Your task to perform on an android device: clear all cookies in the chrome app Image 0: 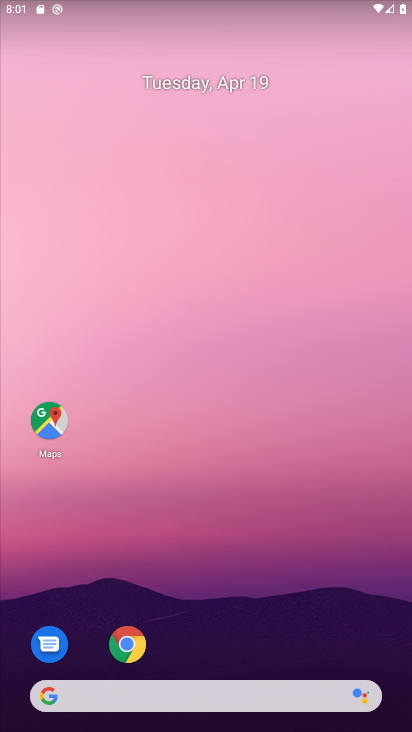
Step 0: drag from (201, 554) to (202, 74)
Your task to perform on an android device: clear all cookies in the chrome app Image 1: 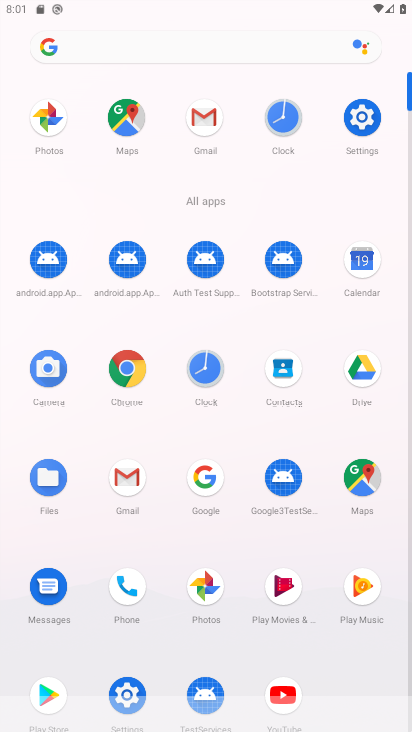
Step 1: drag from (142, 670) to (149, 277)
Your task to perform on an android device: clear all cookies in the chrome app Image 2: 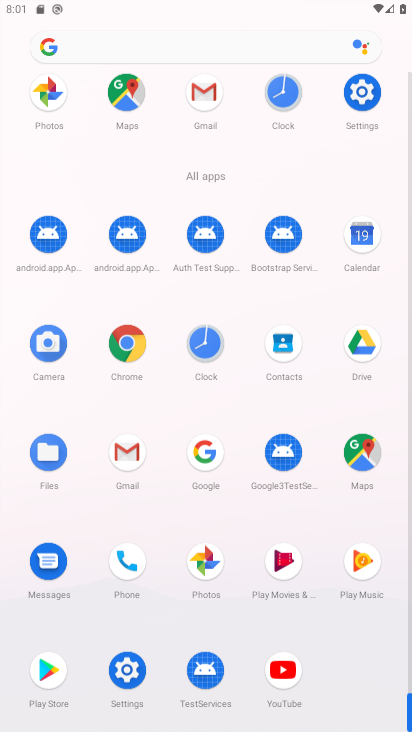
Step 2: click (122, 318)
Your task to perform on an android device: clear all cookies in the chrome app Image 3: 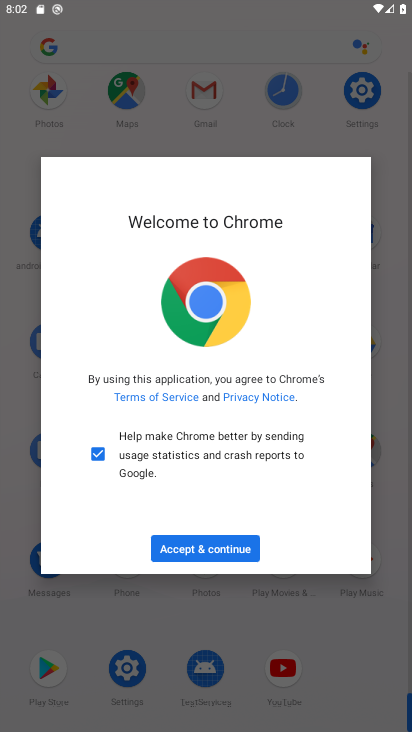
Step 3: click (220, 552)
Your task to perform on an android device: clear all cookies in the chrome app Image 4: 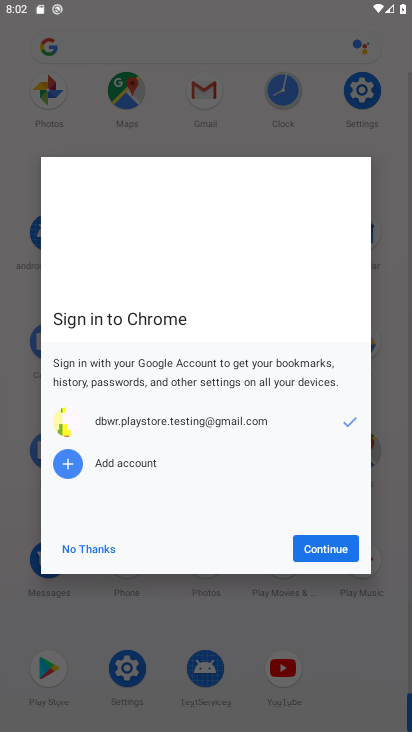
Step 4: click (336, 548)
Your task to perform on an android device: clear all cookies in the chrome app Image 5: 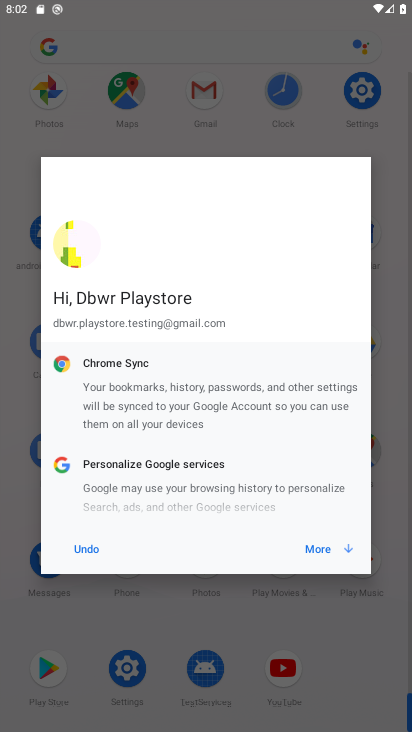
Step 5: click (316, 547)
Your task to perform on an android device: clear all cookies in the chrome app Image 6: 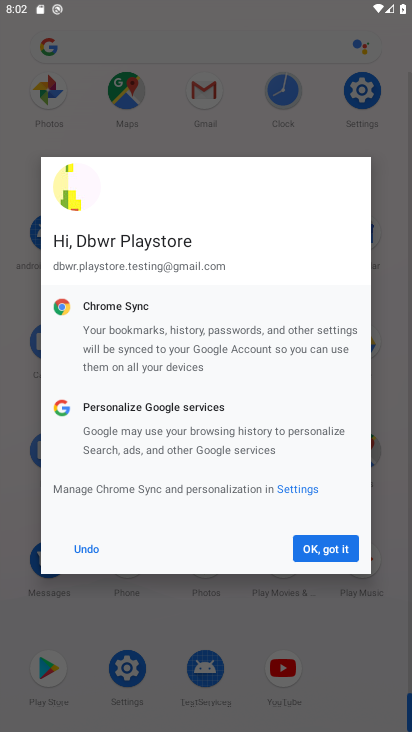
Step 6: click (316, 546)
Your task to perform on an android device: clear all cookies in the chrome app Image 7: 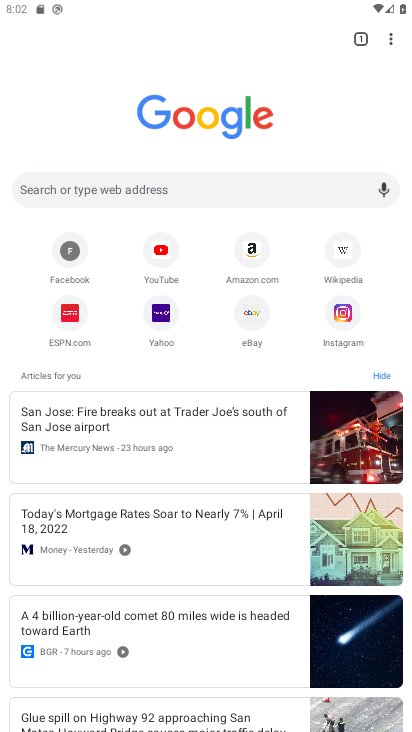
Step 7: click (389, 38)
Your task to perform on an android device: clear all cookies in the chrome app Image 8: 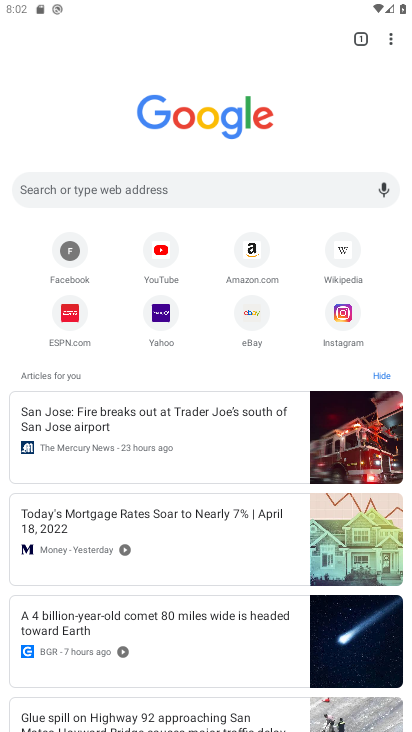
Step 8: click (389, 38)
Your task to perform on an android device: clear all cookies in the chrome app Image 9: 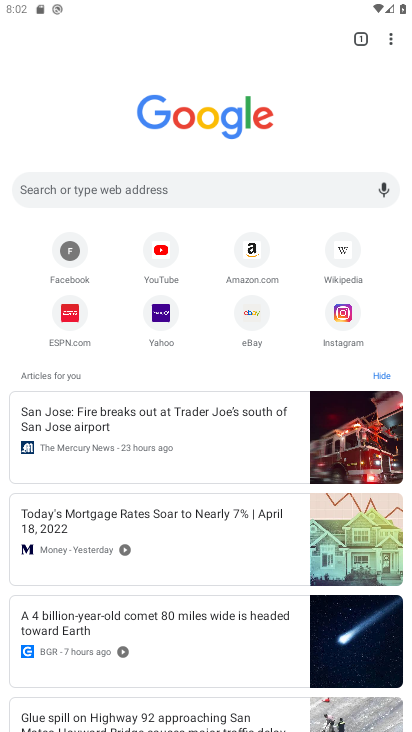
Step 9: click (390, 40)
Your task to perform on an android device: clear all cookies in the chrome app Image 10: 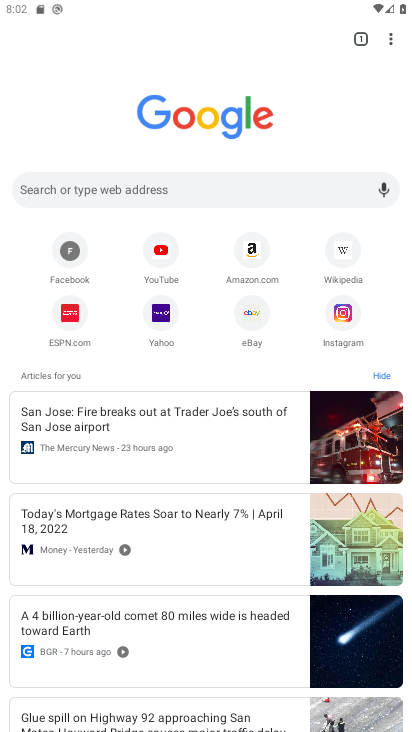
Step 10: click (390, 43)
Your task to perform on an android device: clear all cookies in the chrome app Image 11: 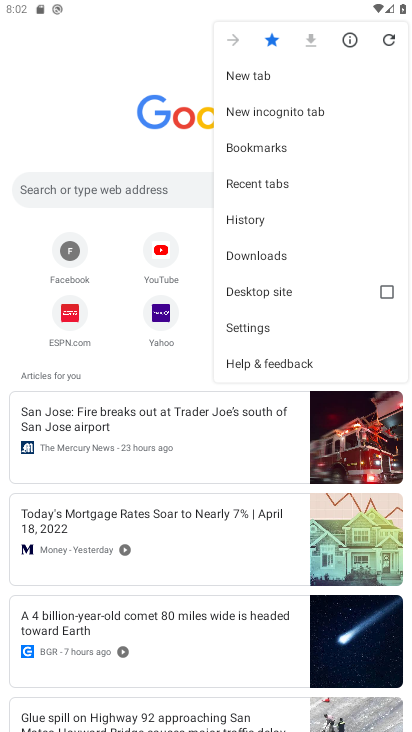
Step 11: click (253, 215)
Your task to perform on an android device: clear all cookies in the chrome app Image 12: 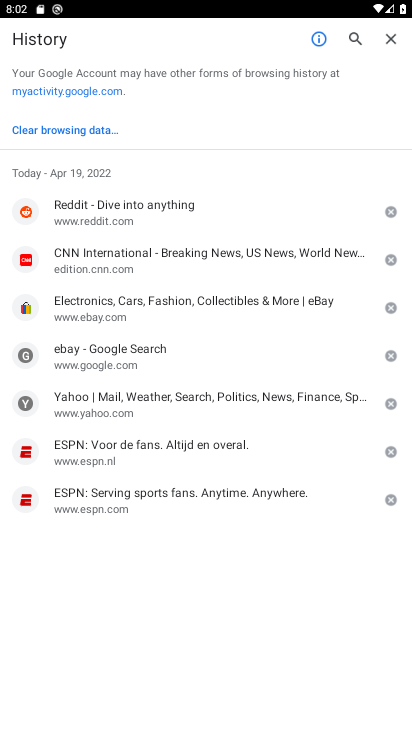
Step 12: click (89, 133)
Your task to perform on an android device: clear all cookies in the chrome app Image 13: 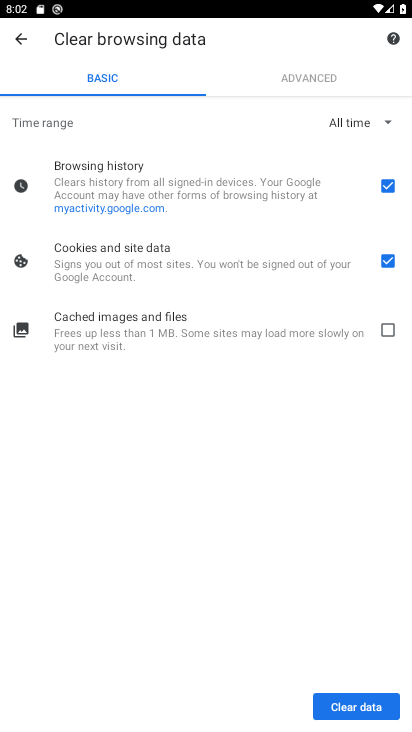
Step 13: click (301, 85)
Your task to perform on an android device: clear all cookies in the chrome app Image 14: 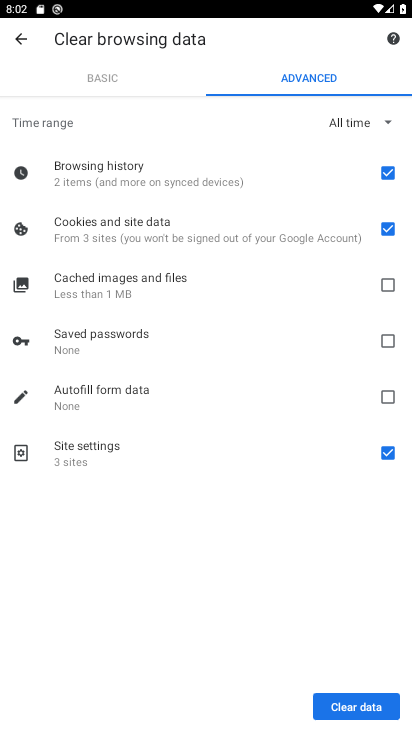
Step 14: click (389, 175)
Your task to perform on an android device: clear all cookies in the chrome app Image 15: 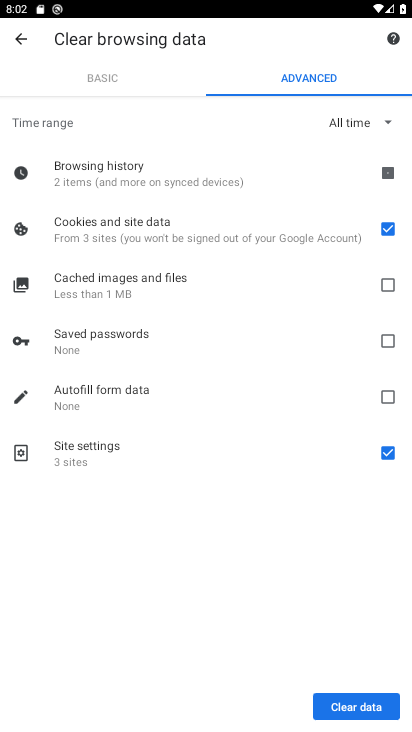
Step 15: click (395, 451)
Your task to perform on an android device: clear all cookies in the chrome app Image 16: 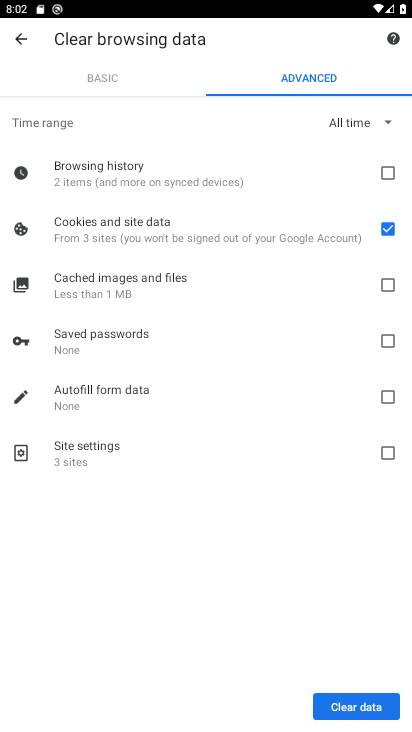
Step 16: click (382, 702)
Your task to perform on an android device: clear all cookies in the chrome app Image 17: 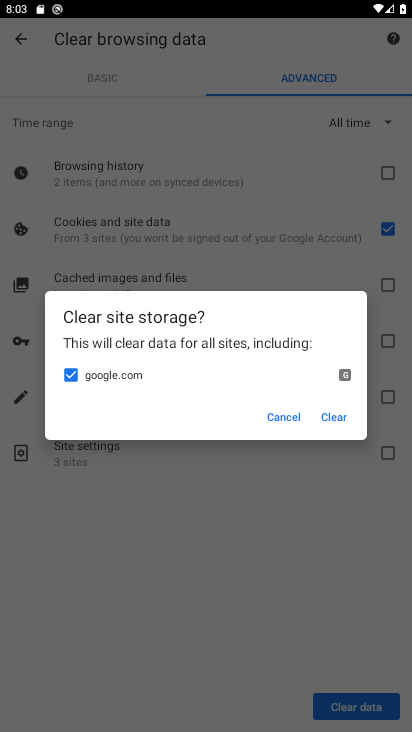
Step 17: click (336, 411)
Your task to perform on an android device: clear all cookies in the chrome app Image 18: 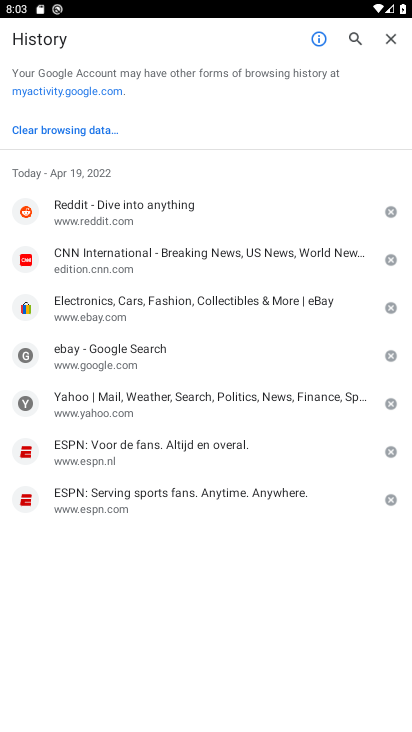
Step 18: task complete